Your task to perform on an android device: set an alarm Image 0: 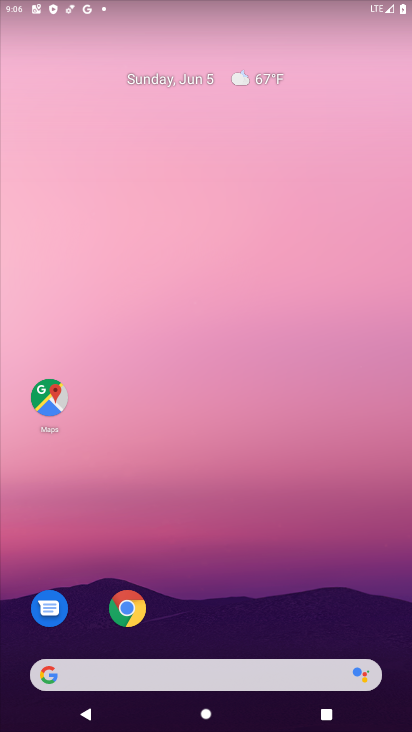
Step 0: drag from (42, 529) to (163, 151)
Your task to perform on an android device: set an alarm Image 1: 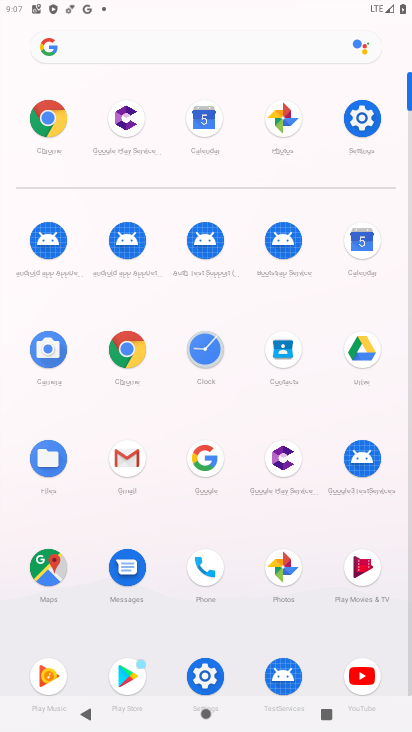
Step 1: click (201, 355)
Your task to perform on an android device: set an alarm Image 2: 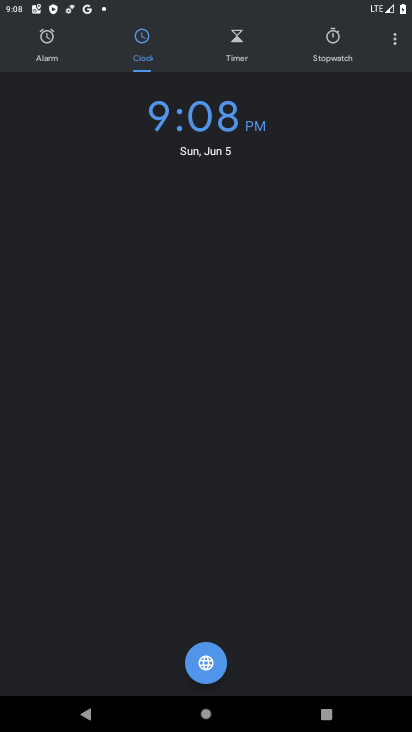
Step 2: click (58, 45)
Your task to perform on an android device: set an alarm Image 3: 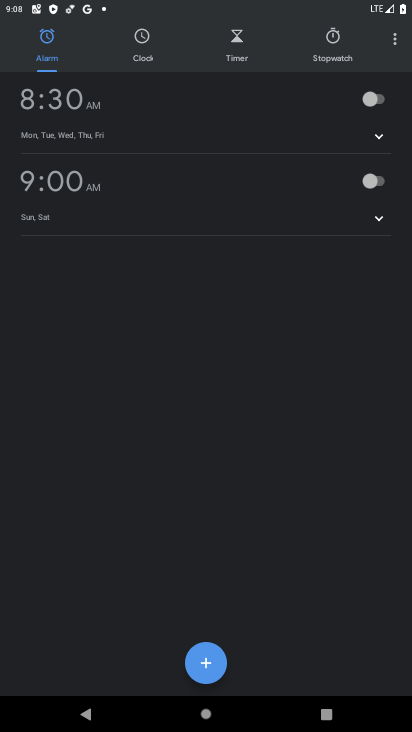
Step 3: click (206, 662)
Your task to perform on an android device: set an alarm Image 4: 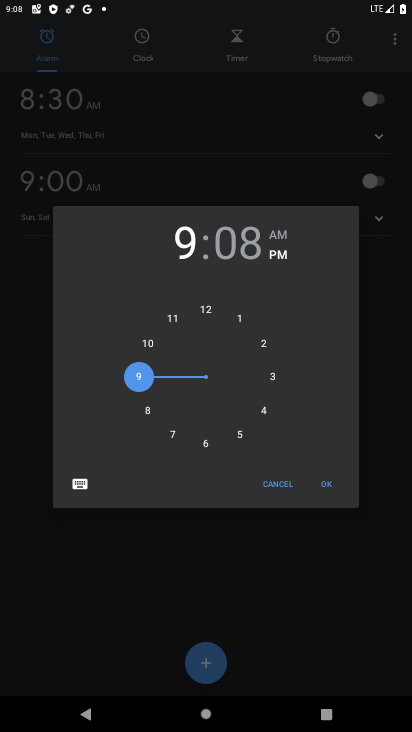
Step 4: click (315, 488)
Your task to perform on an android device: set an alarm Image 5: 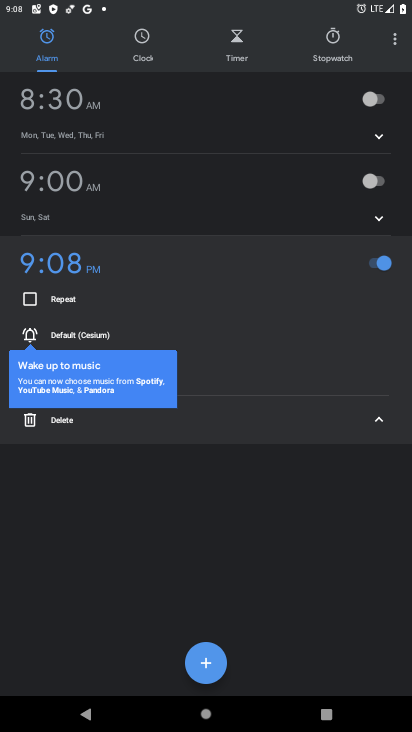
Step 5: task complete